Your task to perform on an android device: Show the shopping cart on ebay. Image 0: 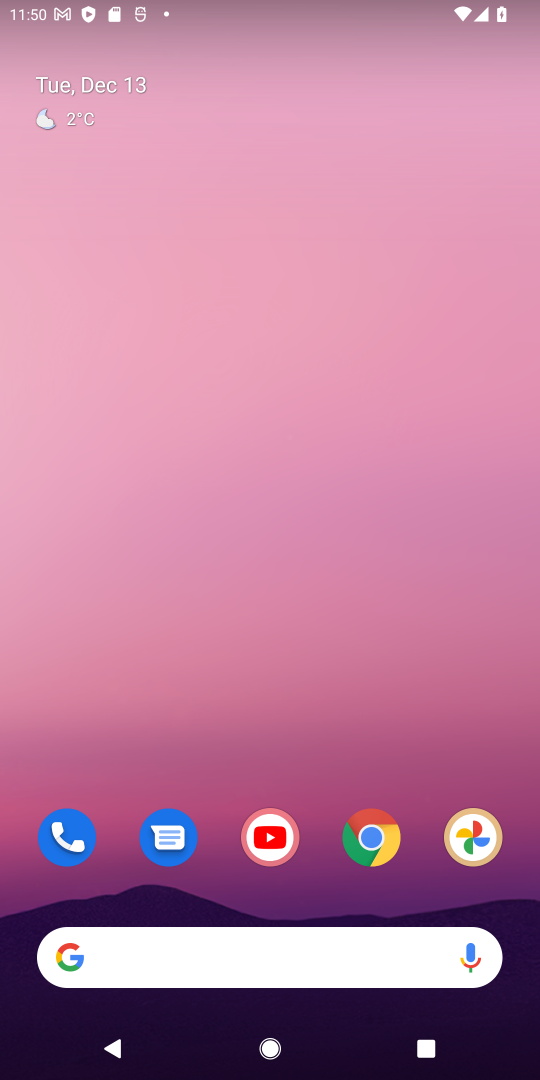
Step 0: click (262, 949)
Your task to perform on an android device: Show the shopping cart on ebay. Image 1: 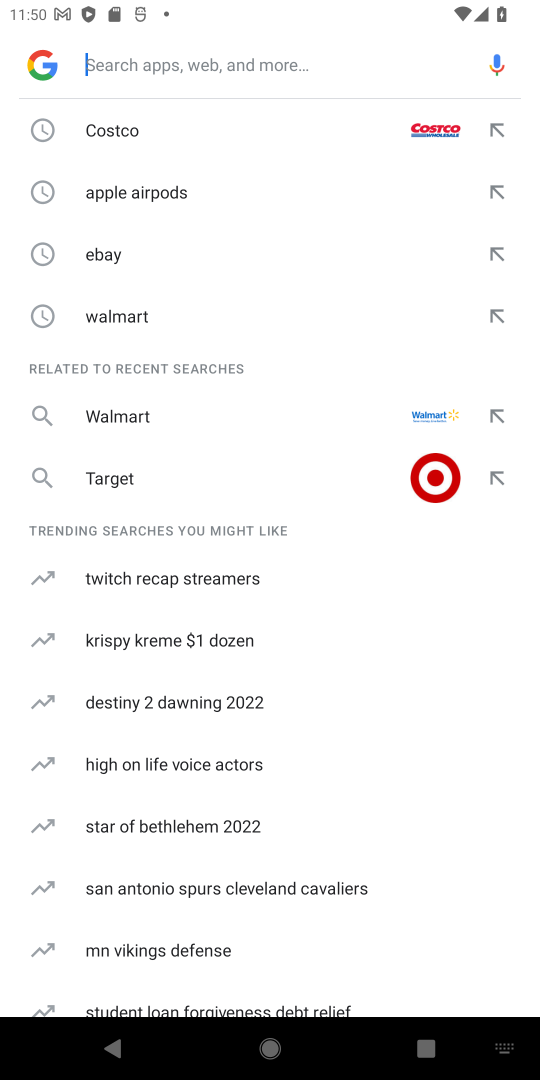
Step 1: click (102, 272)
Your task to perform on an android device: Show the shopping cart on ebay. Image 2: 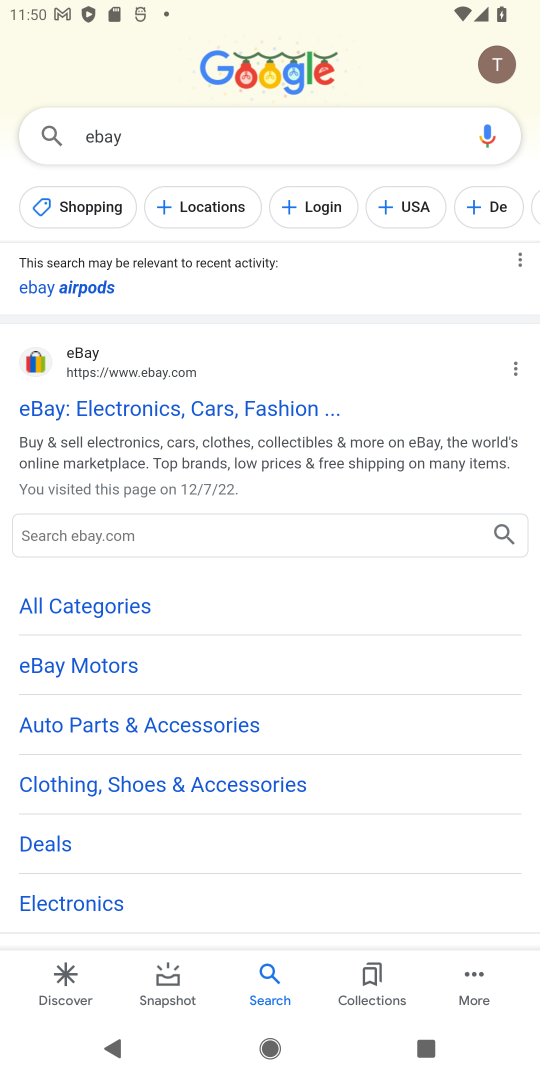
Step 2: click (99, 414)
Your task to perform on an android device: Show the shopping cart on ebay. Image 3: 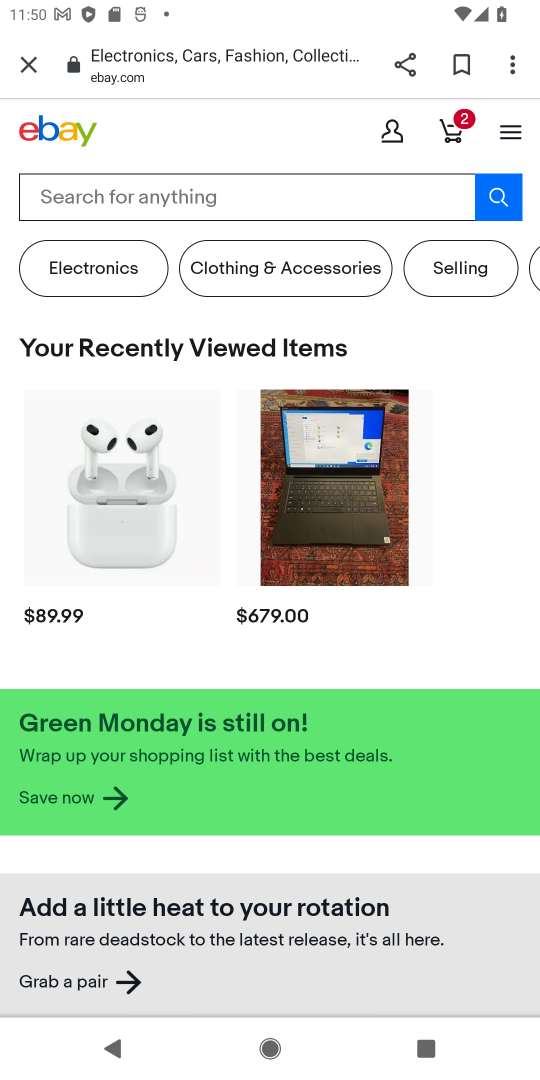
Step 3: click (172, 211)
Your task to perform on an android device: Show the shopping cart on ebay. Image 4: 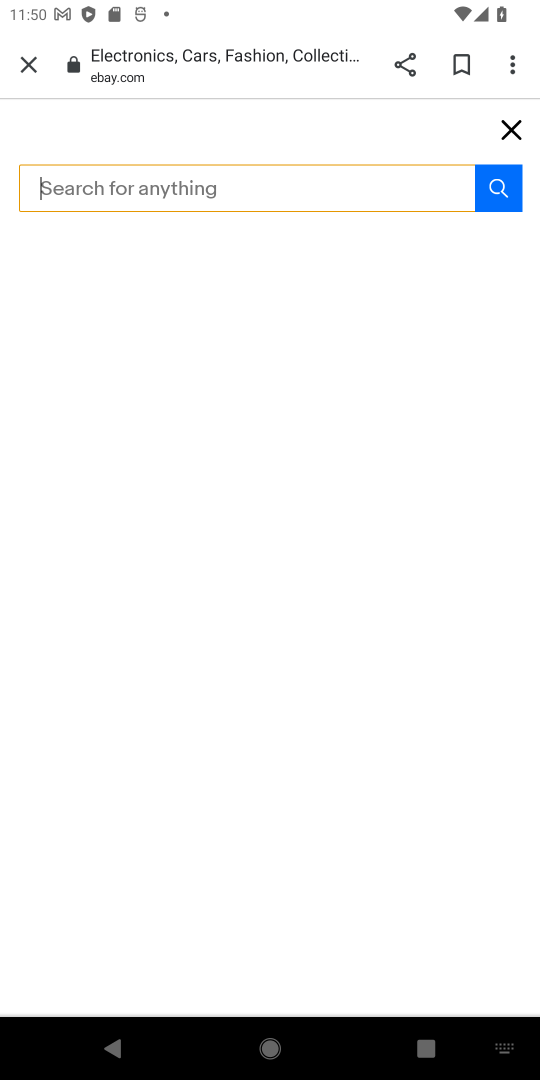
Step 4: click (519, 129)
Your task to perform on an android device: Show the shopping cart on ebay. Image 5: 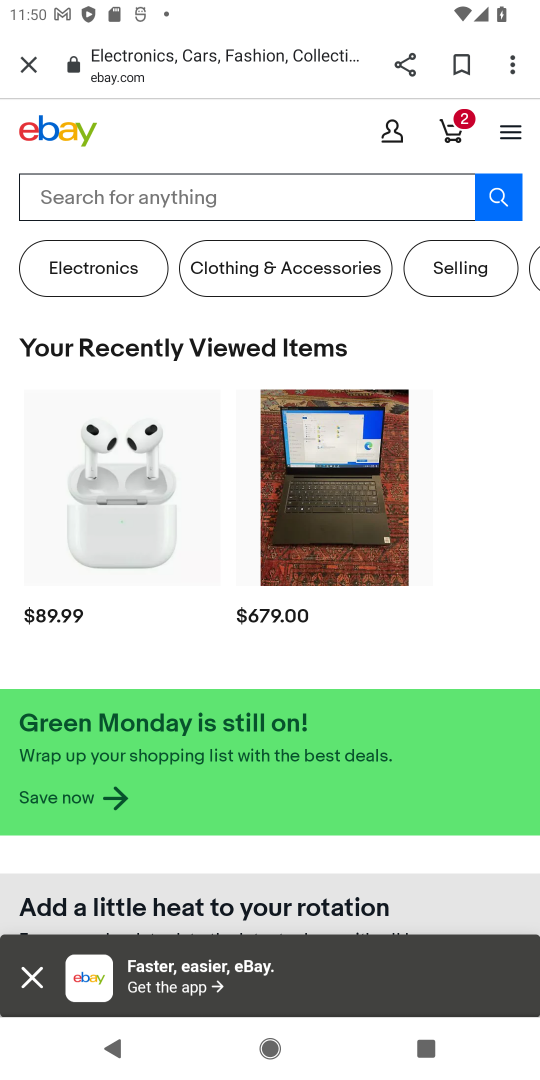
Step 5: click (449, 132)
Your task to perform on an android device: Show the shopping cart on ebay. Image 6: 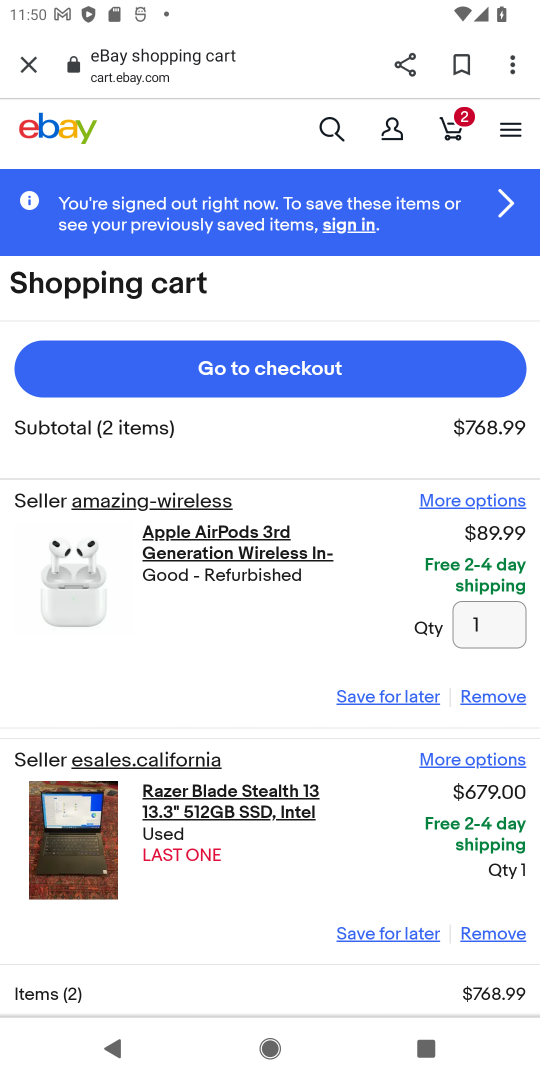
Step 6: click (506, 701)
Your task to perform on an android device: Show the shopping cart on ebay. Image 7: 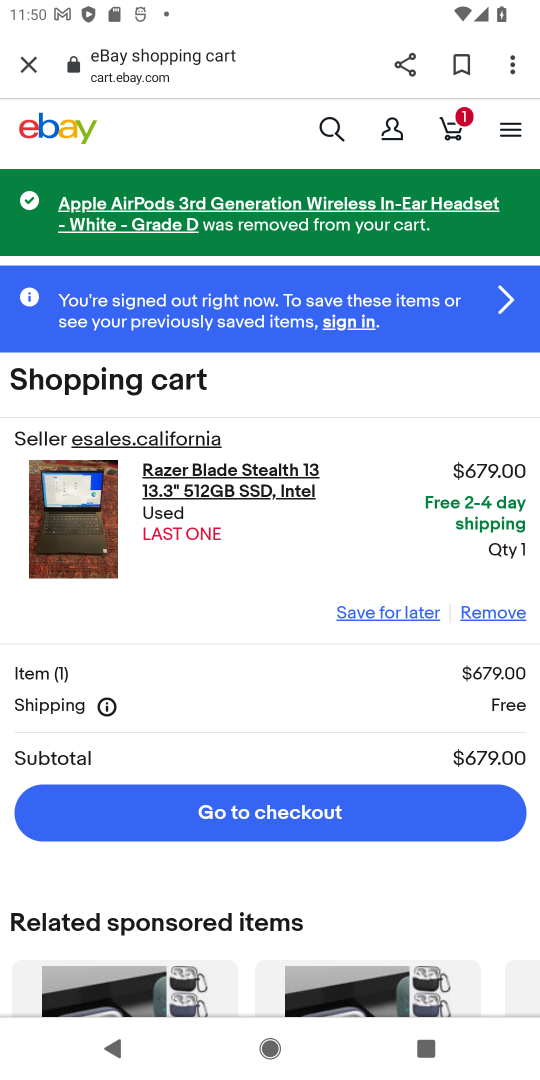
Step 7: click (478, 609)
Your task to perform on an android device: Show the shopping cart on ebay. Image 8: 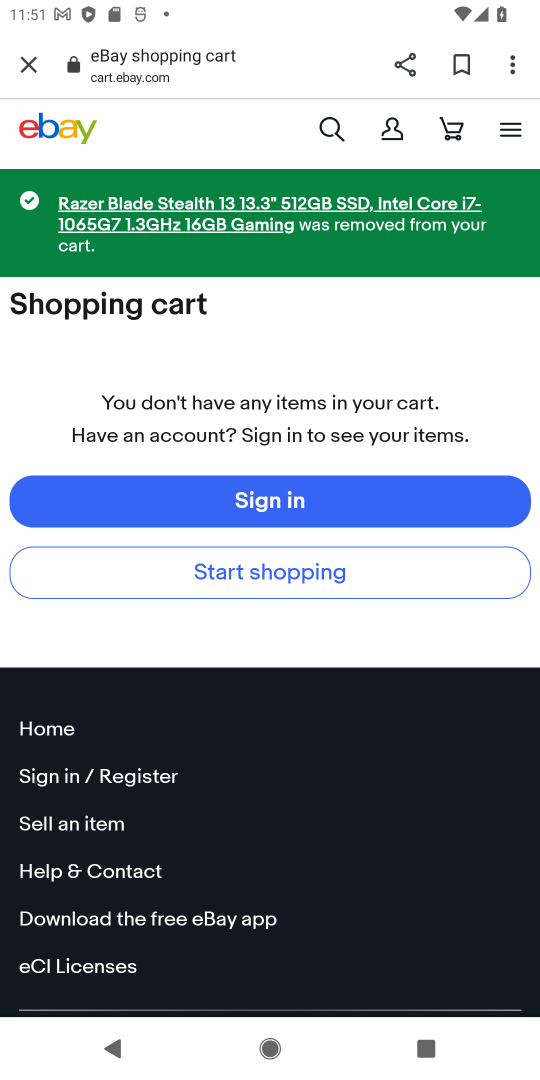
Step 8: task complete